Your task to perform on an android device: all mails in gmail Image 0: 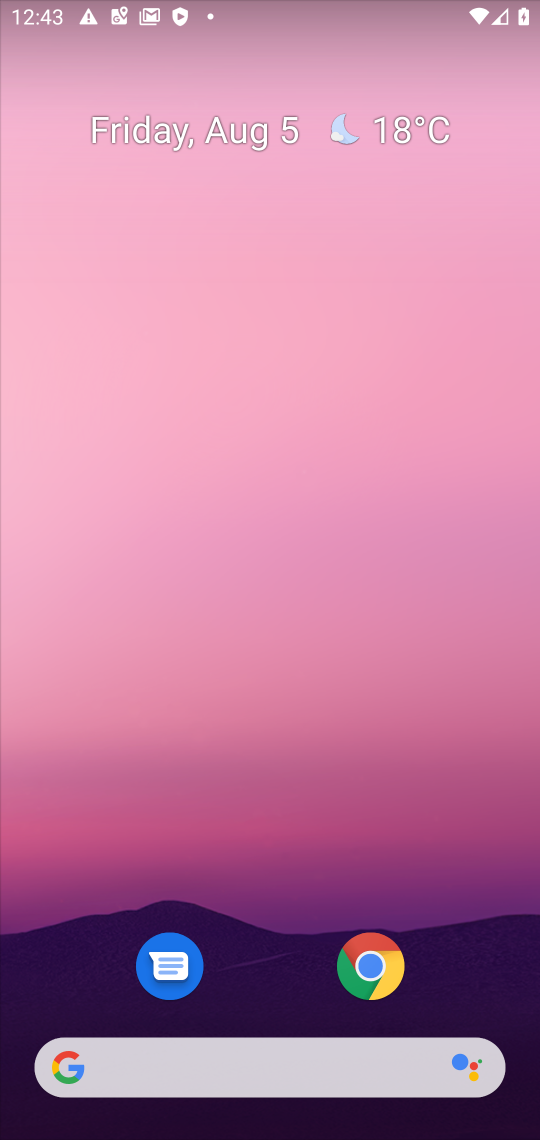
Step 0: press home button
Your task to perform on an android device: all mails in gmail Image 1: 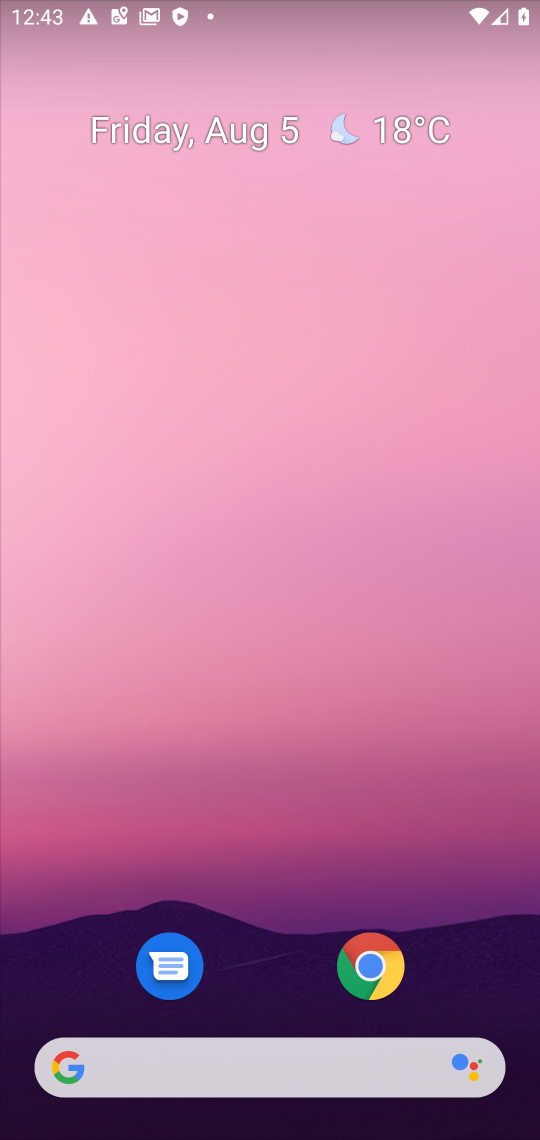
Step 1: drag from (271, 919) to (301, 63)
Your task to perform on an android device: all mails in gmail Image 2: 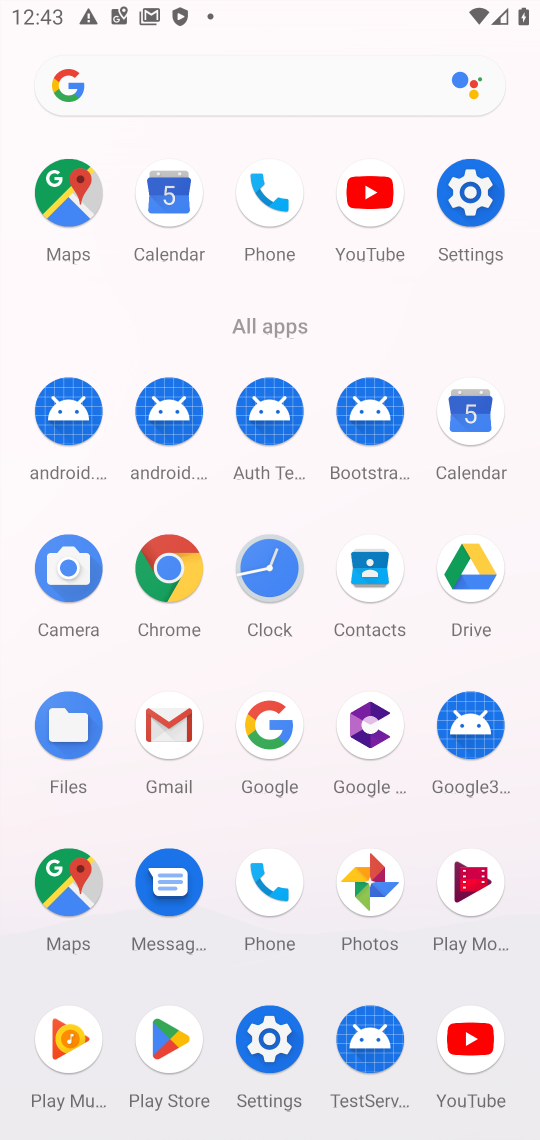
Step 2: click (162, 709)
Your task to perform on an android device: all mails in gmail Image 3: 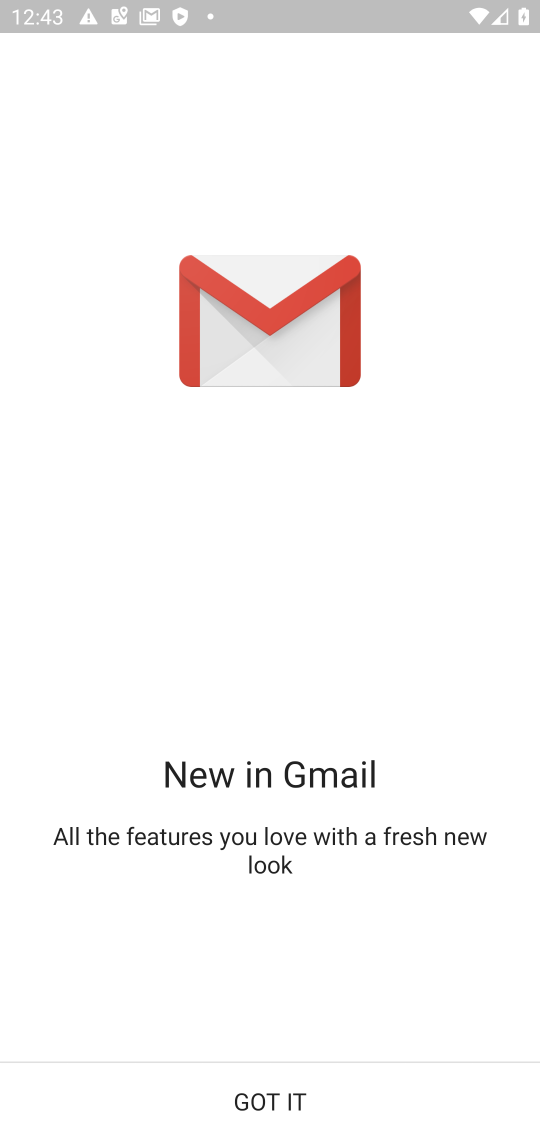
Step 3: click (268, 1089)
Your task to perform on an android device: all mails in gmail Image 4: 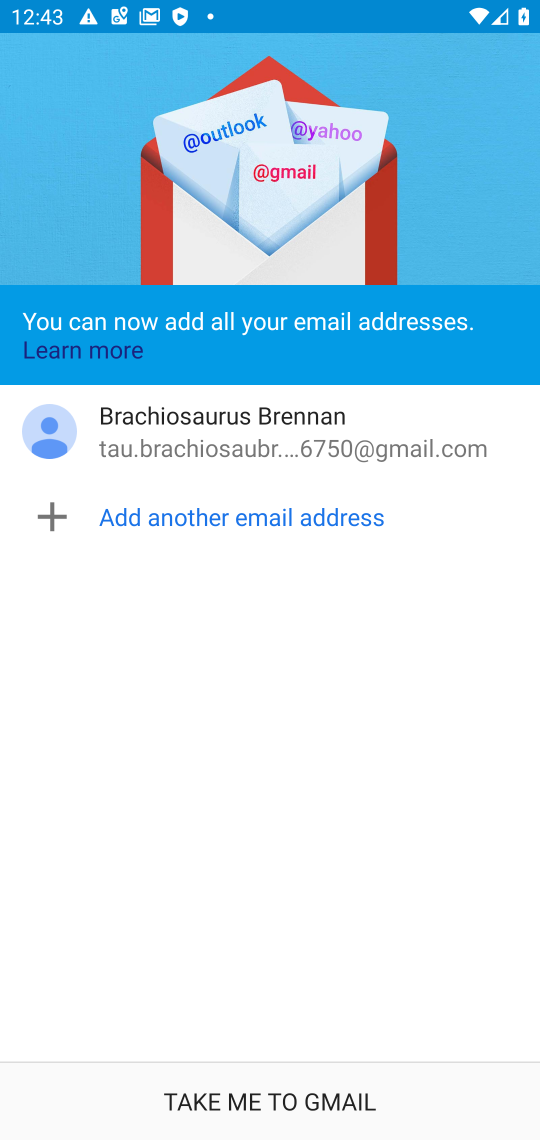
Step 4: click (268, 1091)
Your task to perform on an android device: all mails in gmail Image 5: 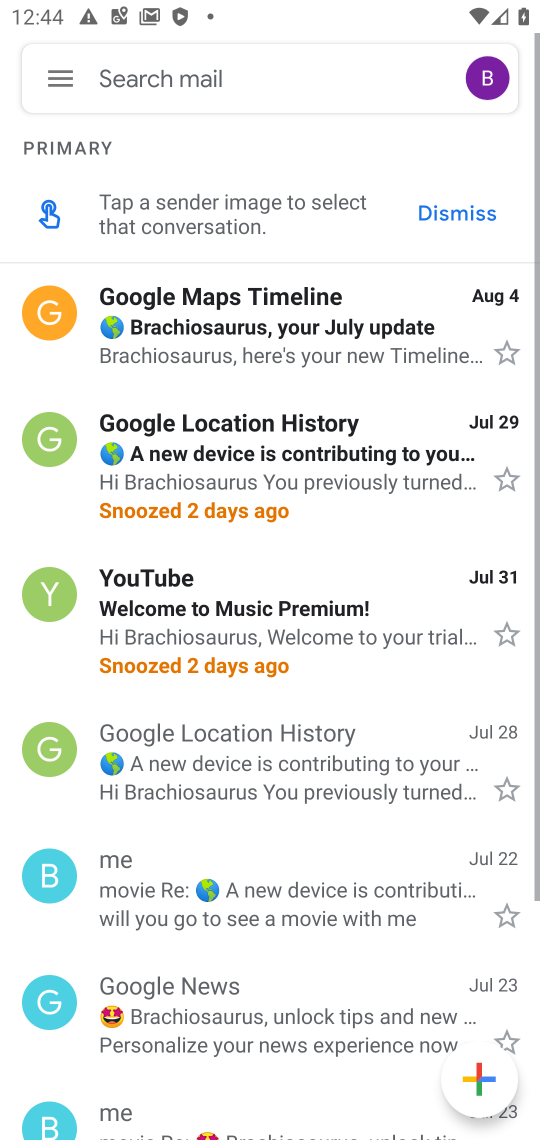
Step 5: task complete